Your task to perform on an android device: Clear the cart on costco. Search for "asus zenbook" on costco, select the first entry, add it to the cart, then select checkout. Image 0: 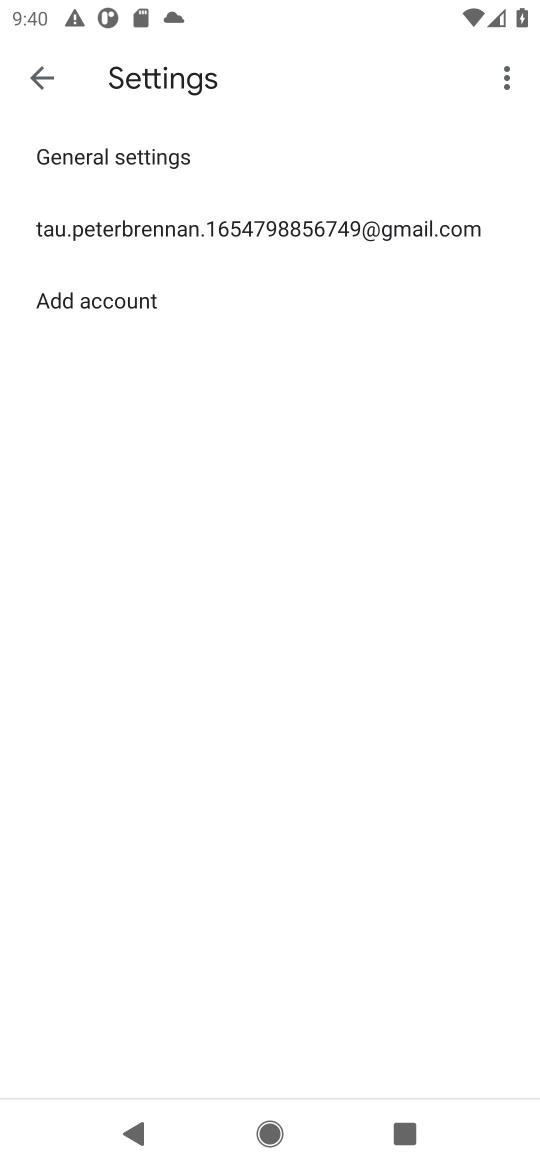
Step 0: press home button
Your task to perform on an android device: Clear the cart on costco. Search for "asus zenbook" on costco, select the first entry, add it to the cart, then select checkout. Image 1: 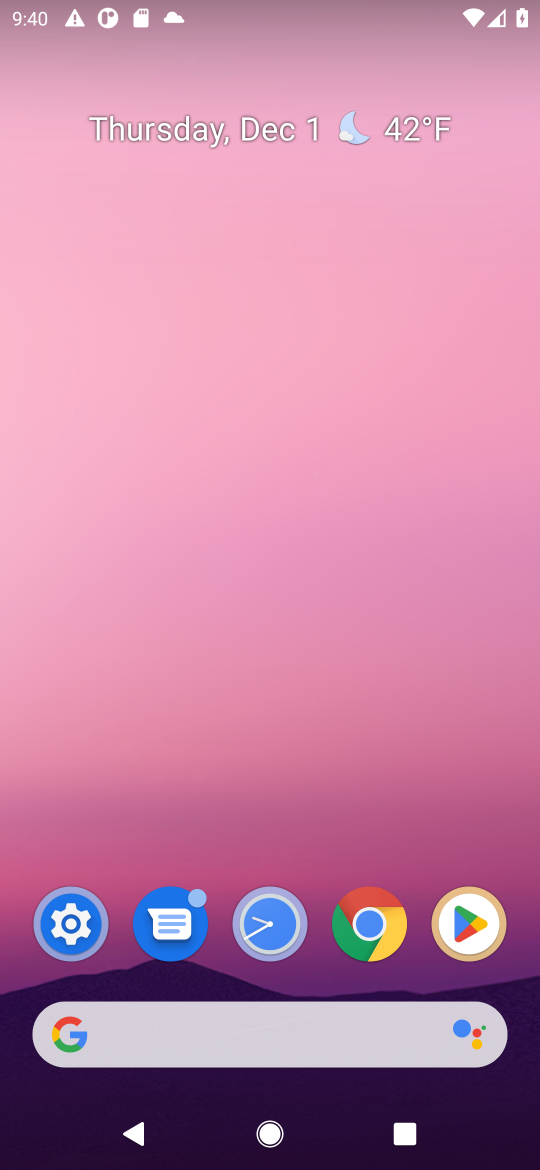
Step 1: click (300, 1044)
Your task to perform on an android device: Clear the cart on costco. Search for "asus zenbook" on costco, select the first entry, add it to the cart, then select checkout. Image 2: 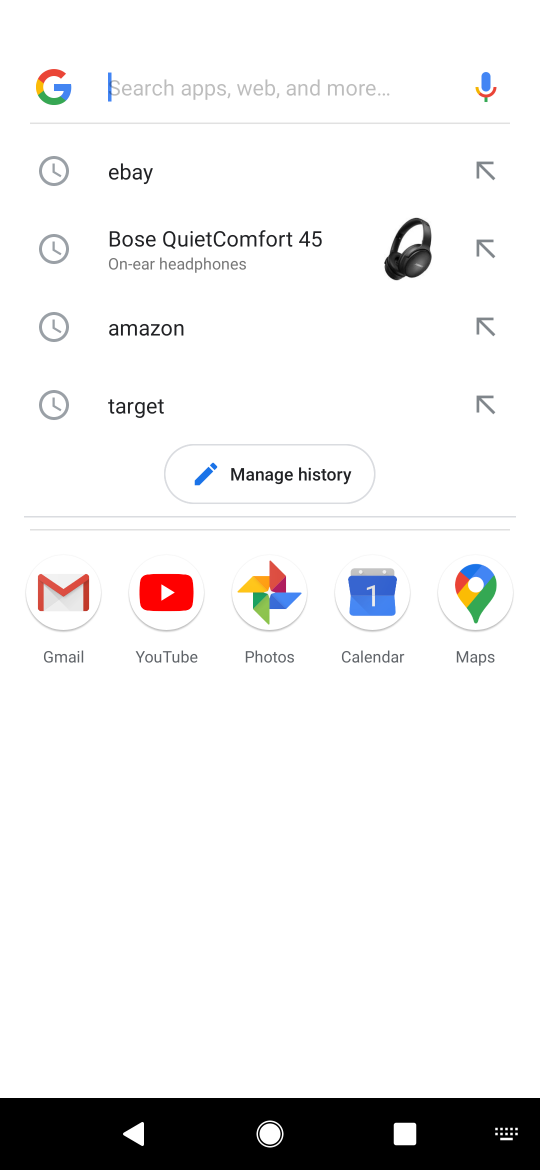
Step 2: type "costco"
Your task to perform on an android device: Clear the cart on costco. Search for "asus zenbook" on costco, select the first entry, add it to the cart, then select checkout. Image 3: 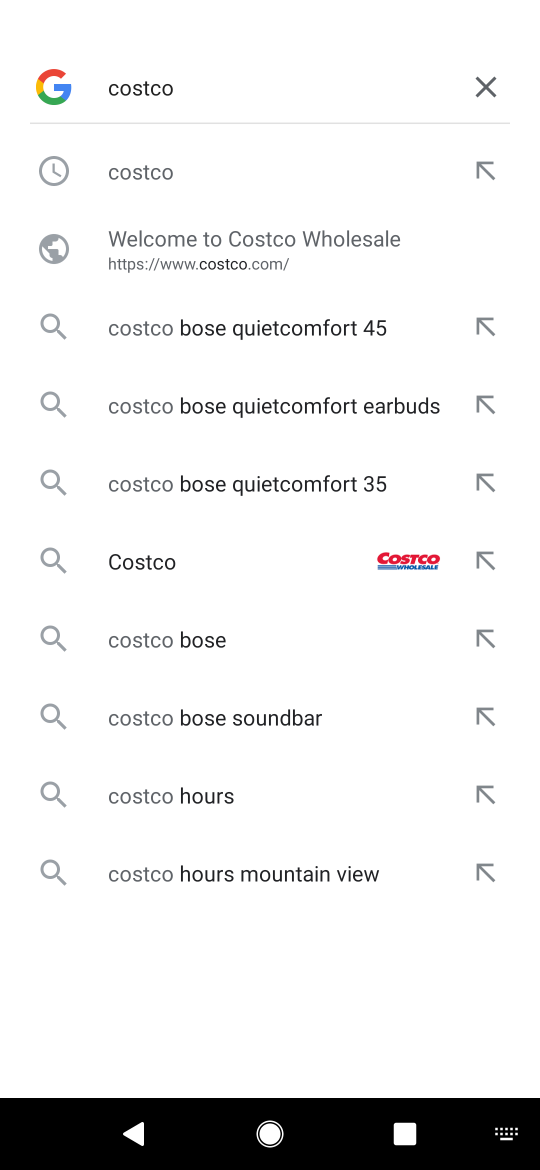
Step 3: click (211, 185)
Your task to perform on an android device: Clear the cart on costco. Search for "asus zenbook" on costco, select the first entry, add it to the cart, then select checkout. Image 4: 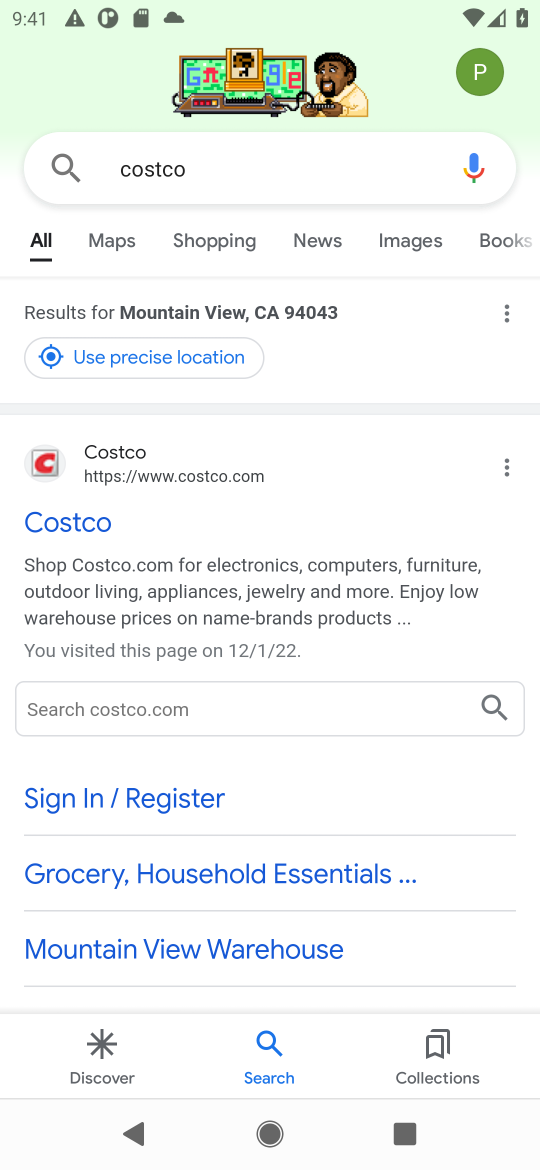
Step 4: click (85, 515)
Your task to perform on an android device: Clear the cart on costco. Search for "asus zenbook" on costco, select the first entry, add it to the cart, then select checkout. Image 5: 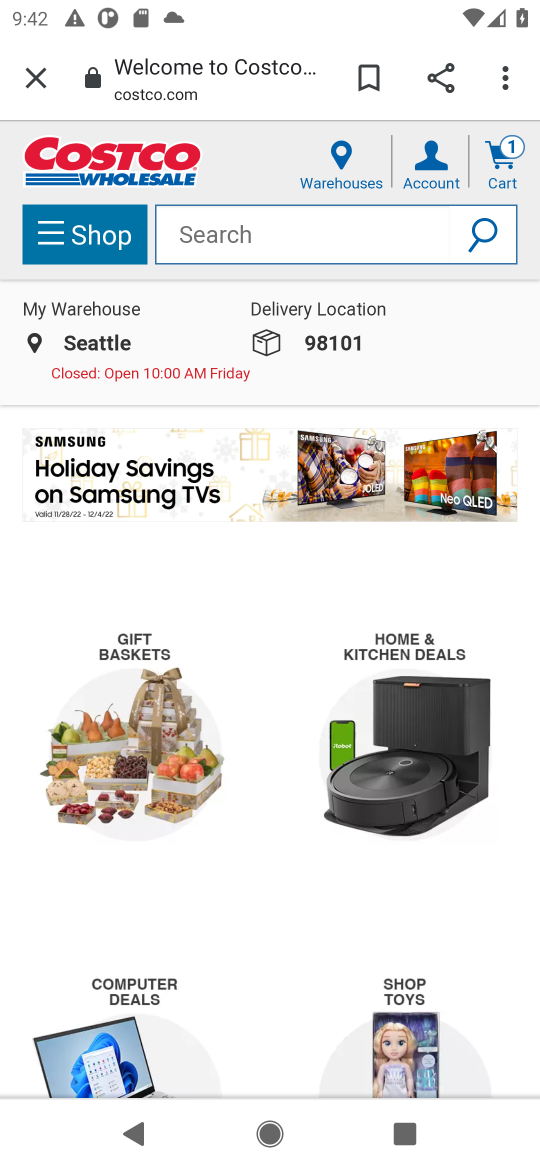
Step 5: task complete